Your task to perform on an android device: Open accessibility settings Image 0: 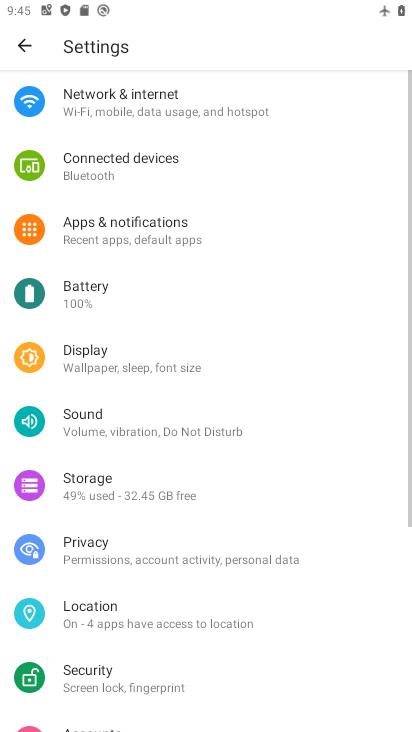
Step 0: drag from (213, 660) to (182, 187)
Your task to perform on an android device: Open accessibility settings Image 1: 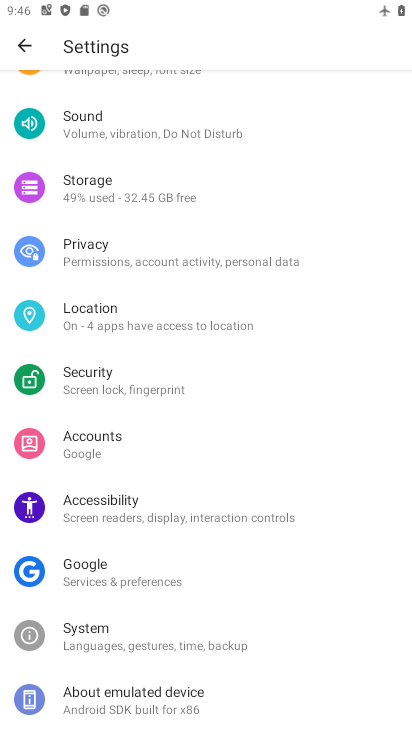
Step 1: click (166, 490)
Your task to perform on an android device: Open accessibility settings Image 2: 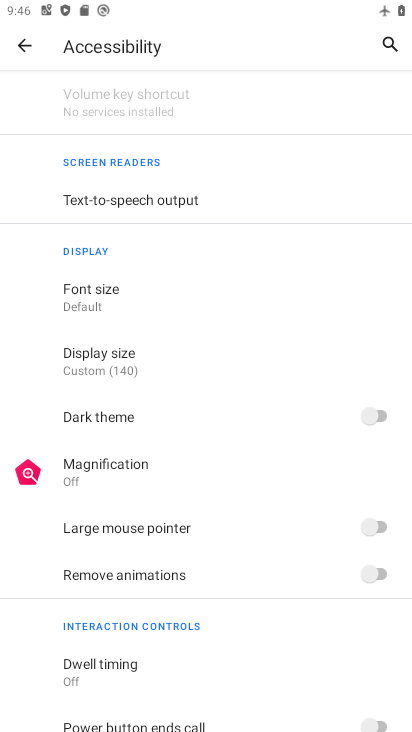
Step 2: task complete